Your task to perform on an android device: toggle data saver in the chrome app Image 0: 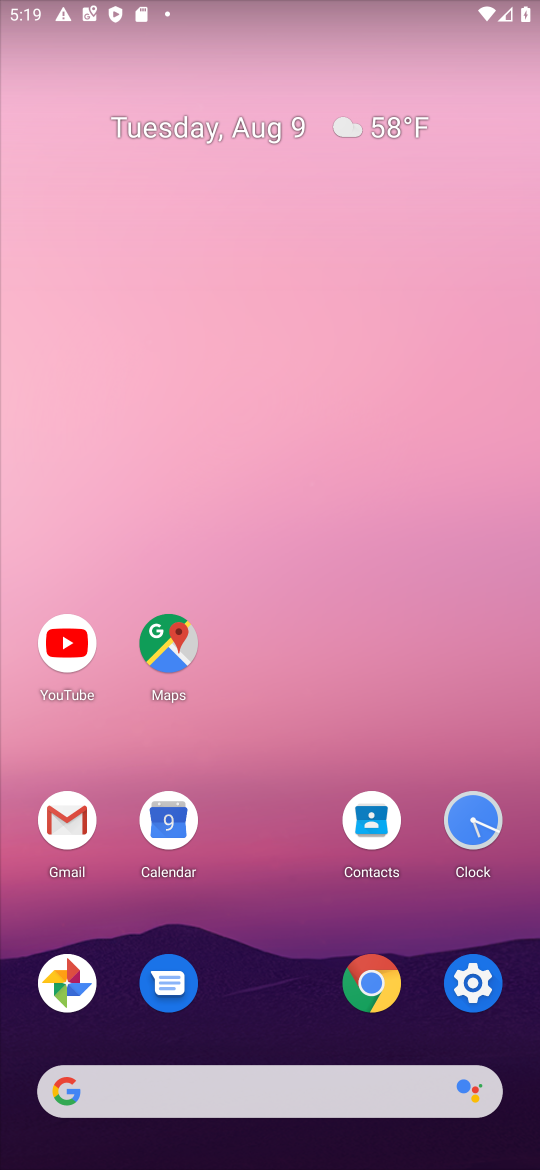
Step 0: click (372, 984)
Your task to perform on an android device: toggle data saver in the chrome app Image 1: 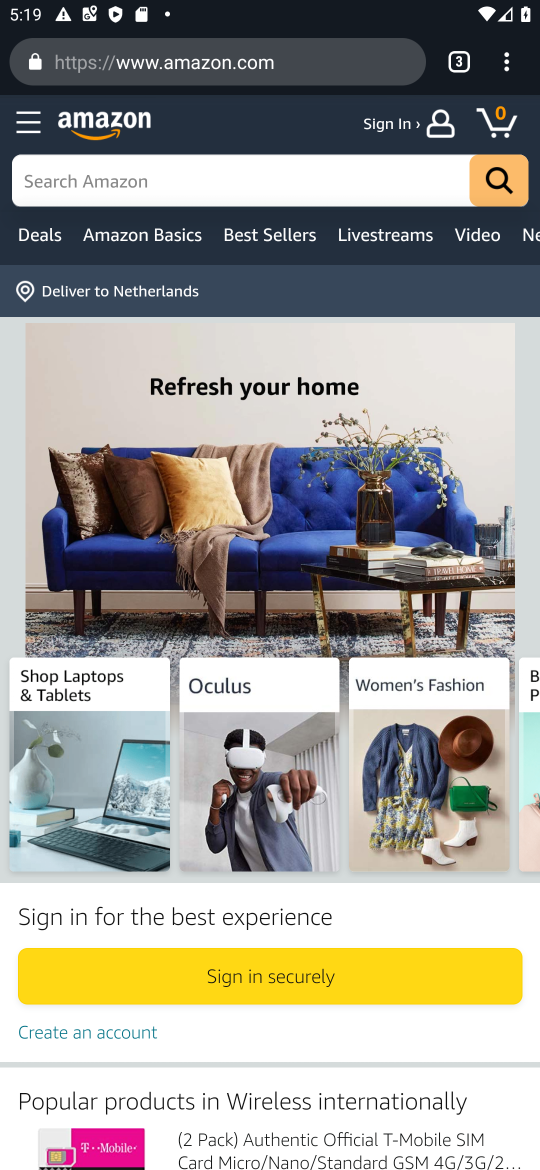
Step 1: click (512, 61)
Your task to perform on an android device: toggle data saver in the chrome app Image 2: 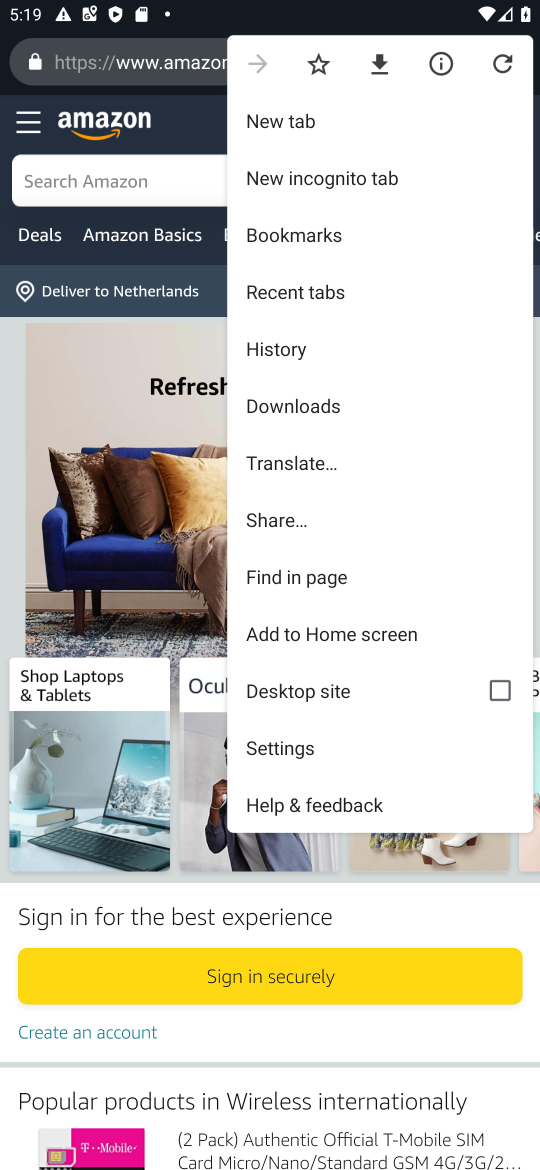
Step 2: click (283, 748)
Your task to perform on an android device: toggle data saver in the chrome app Image 3: 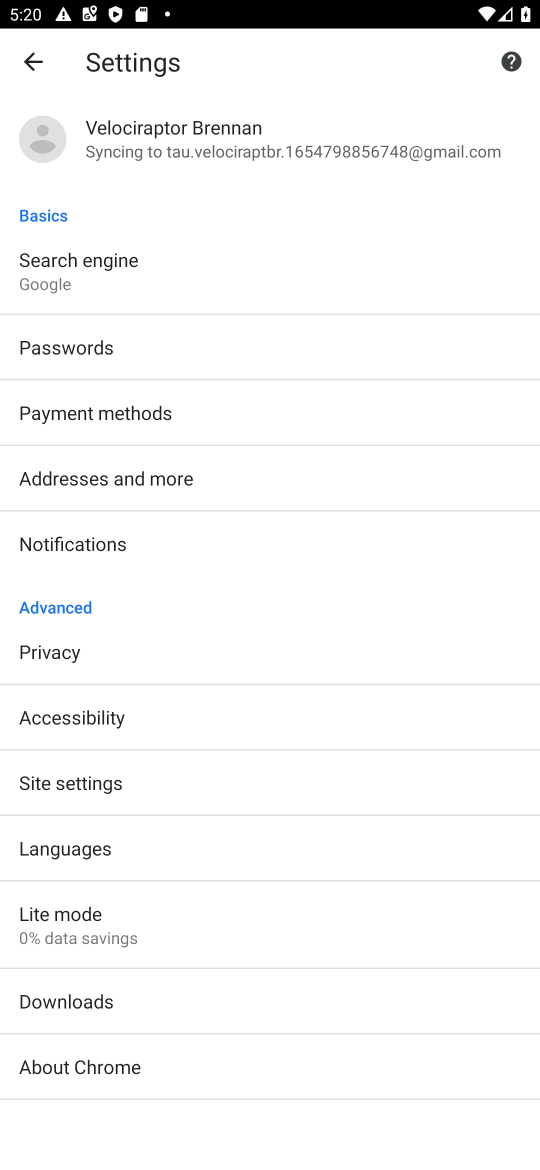
Step 3: click (75, 919)
Your task to perform on an android device: toggle data saver in the chrome app Image 4: 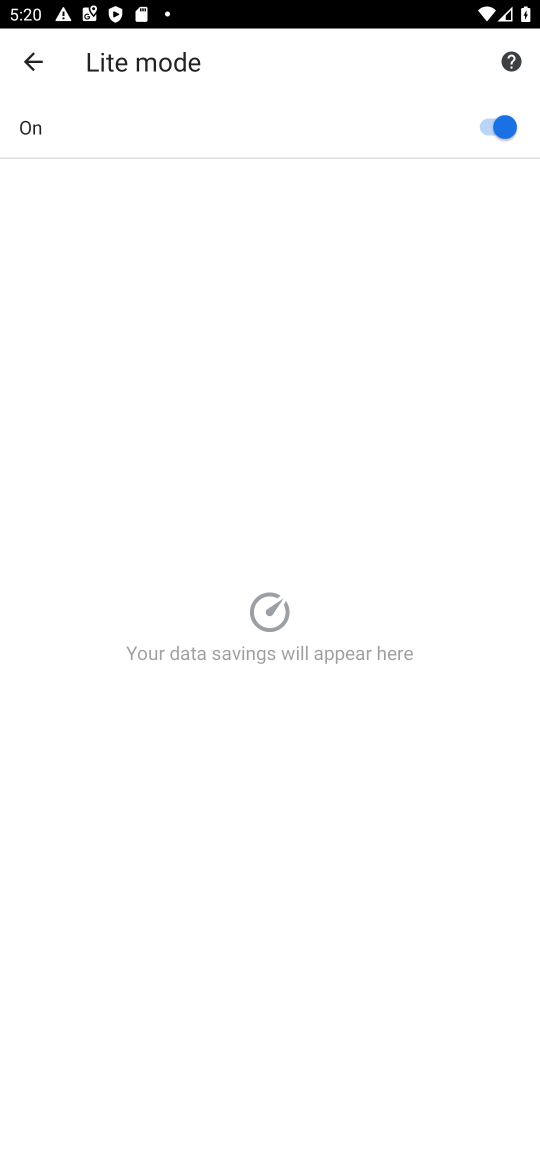
Step 4: click (497, 125)
Your task to perform on an android device: toggle data saver in the chrome app Image 5: 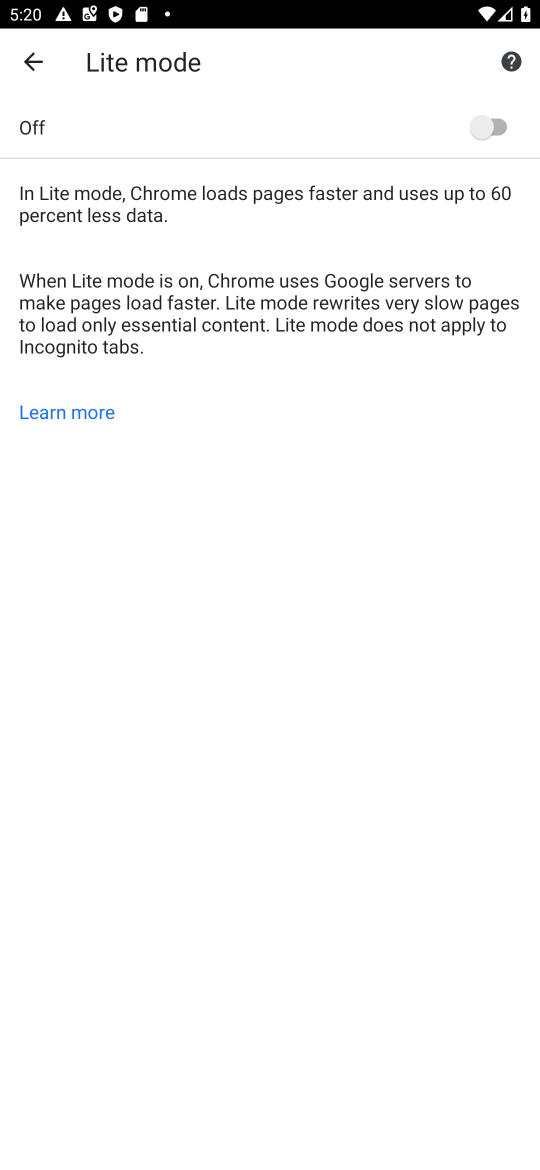
Step 5: task complete